Your task to perform on an android device: Show the shopping cart on costco. Search for "logitech g910" on costco, select the first entry, and add it to the cart. Image 0: 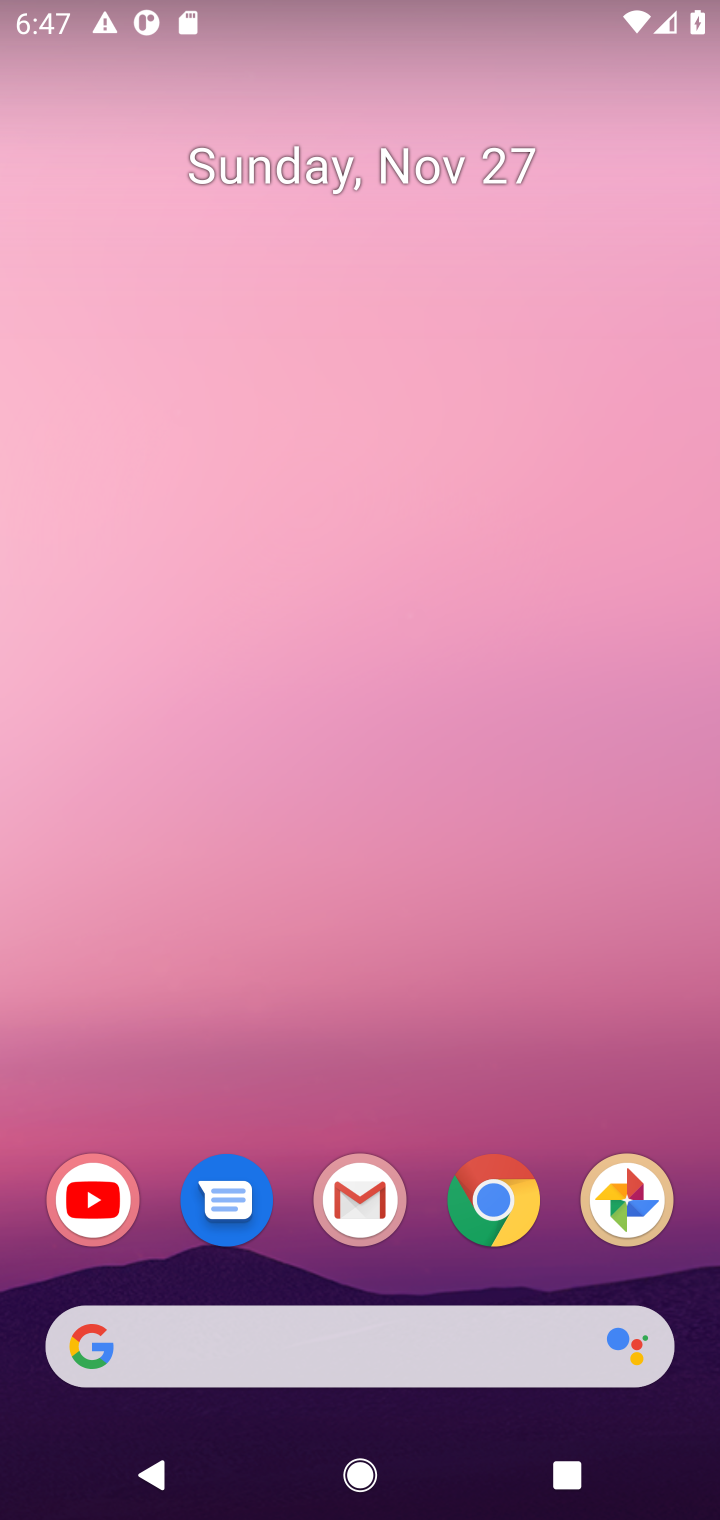
Step 0: click (502, 1205)
Your task to perform on an android device: Show the shopping cart on costco. Search for "logitech g910" on costco, select the first entry, and add it to the cart. Image 1: 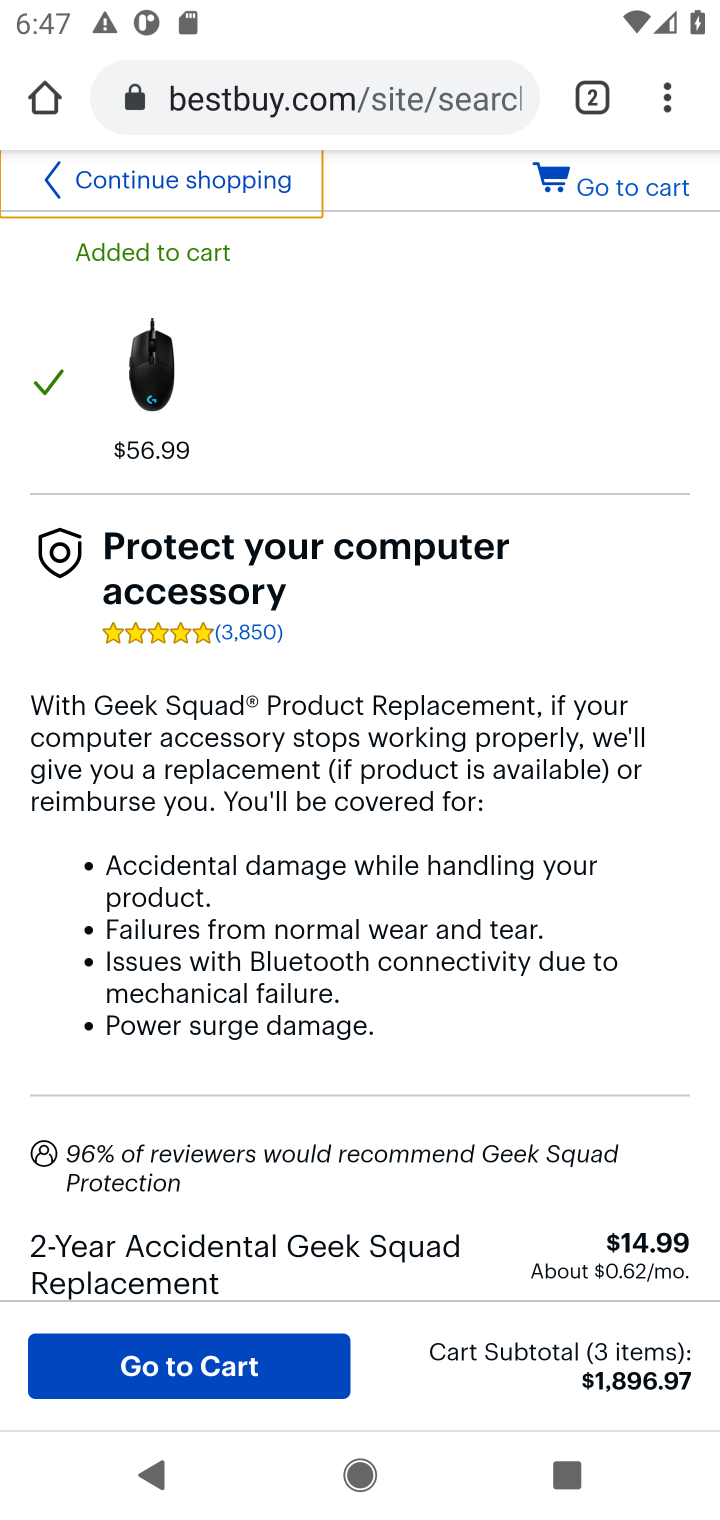
Step 1: press home button
Your task to perform on an android device: Show the shopping cart on costco. Search for "logitech g910" on costco, select the first entry, and add it to the cart. Image 2: 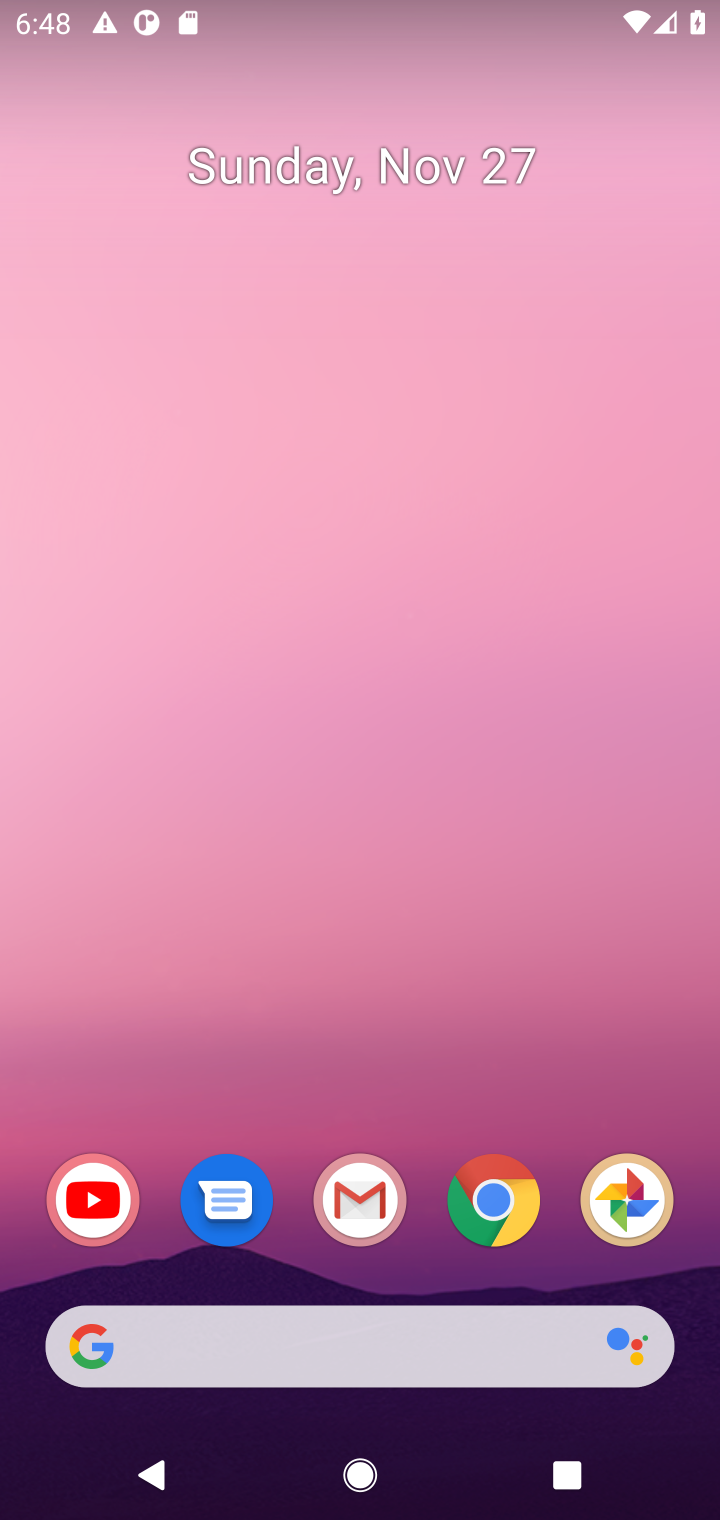
Step 2: click (499, 1211)
Your task to perform on an android device: Show the shopping cart on costco. Search for "logitech g910" on costco, select the first entry, and add it to the cart. Image 3: 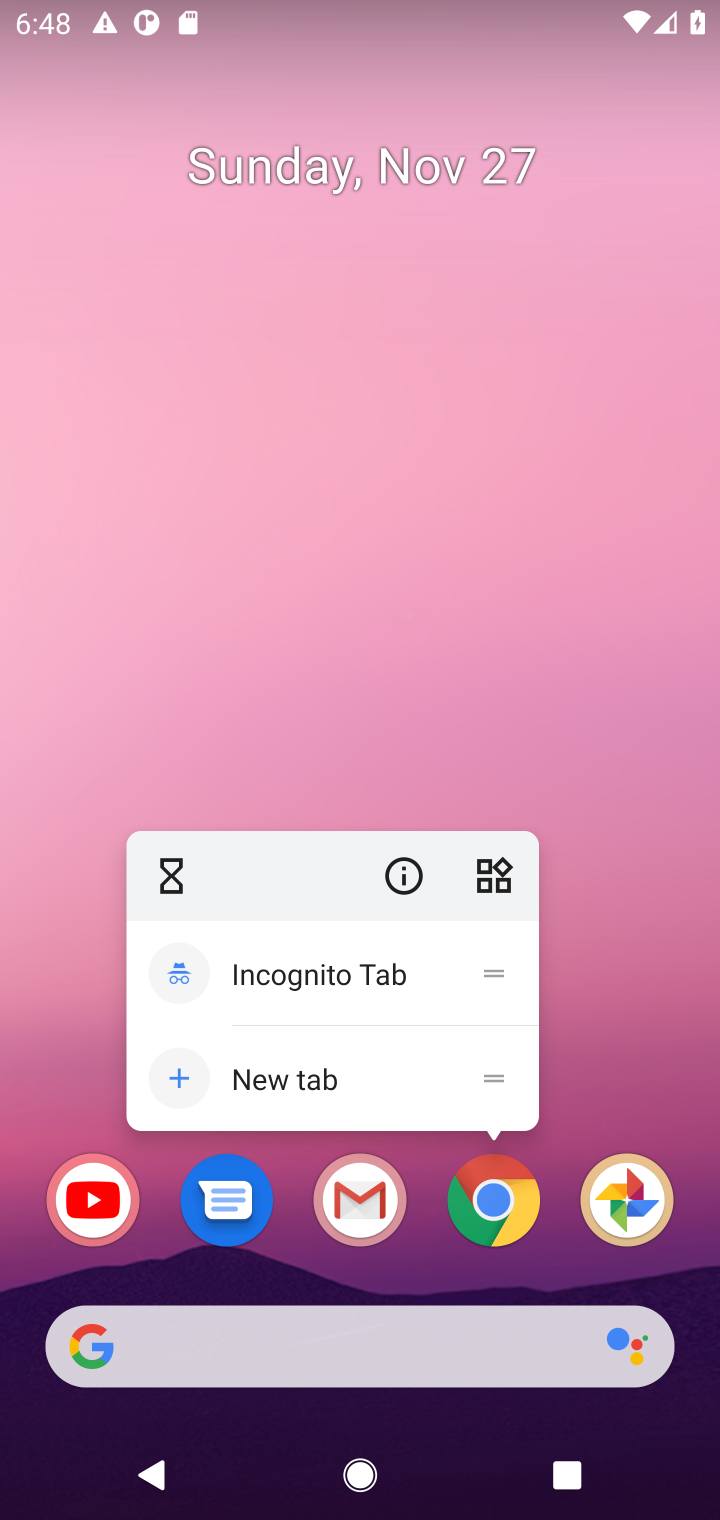
Step 3: click (512, 1211)
Your task to perform on an android device: Show the shopping cart on costco. Search for "logitech g910" on costco, select the first entry, and add it to the cart. Image 4: 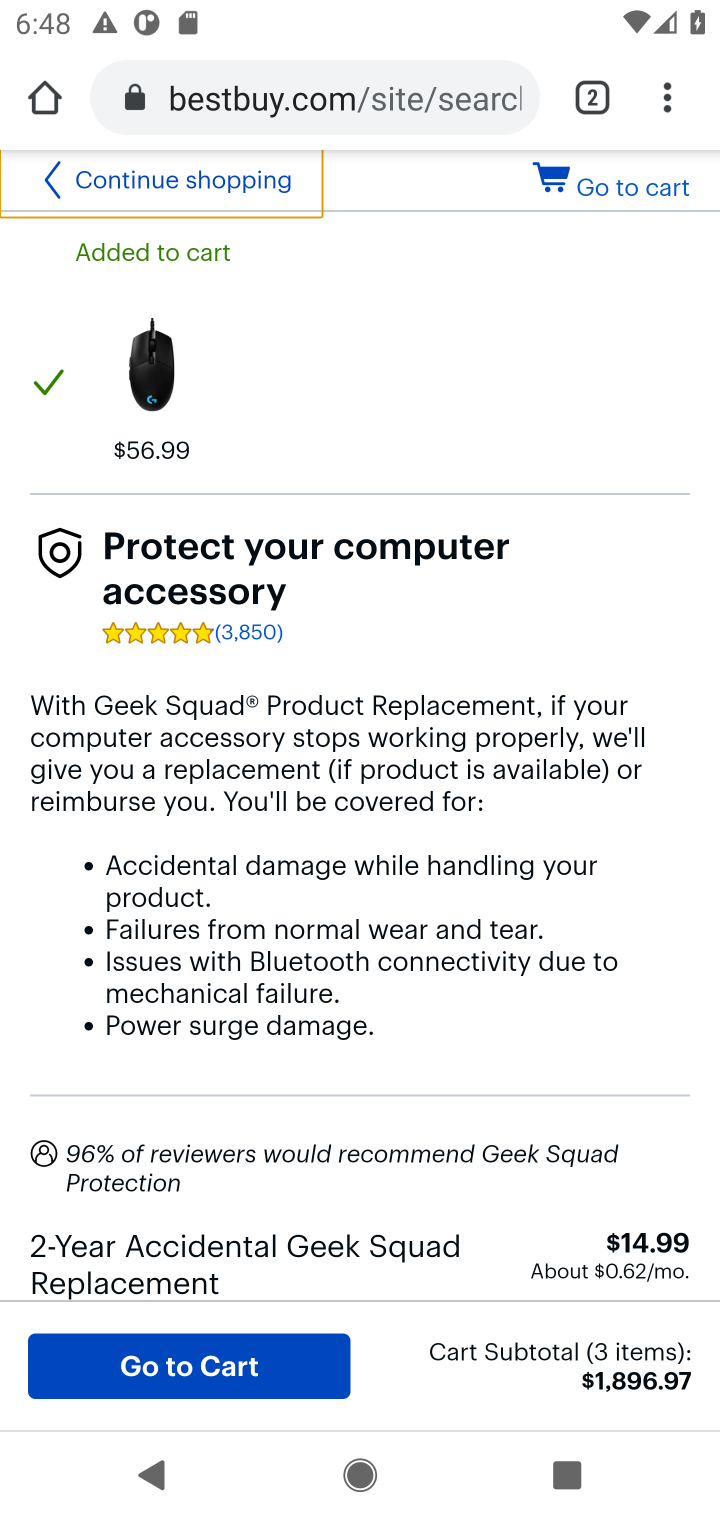
Step 4: click (289, 98)
Your task to perform on an android device: Show the shopping cart on costco. Search for "logitech g910" on costco, select the first entry, and add it to the cart. Image 5: 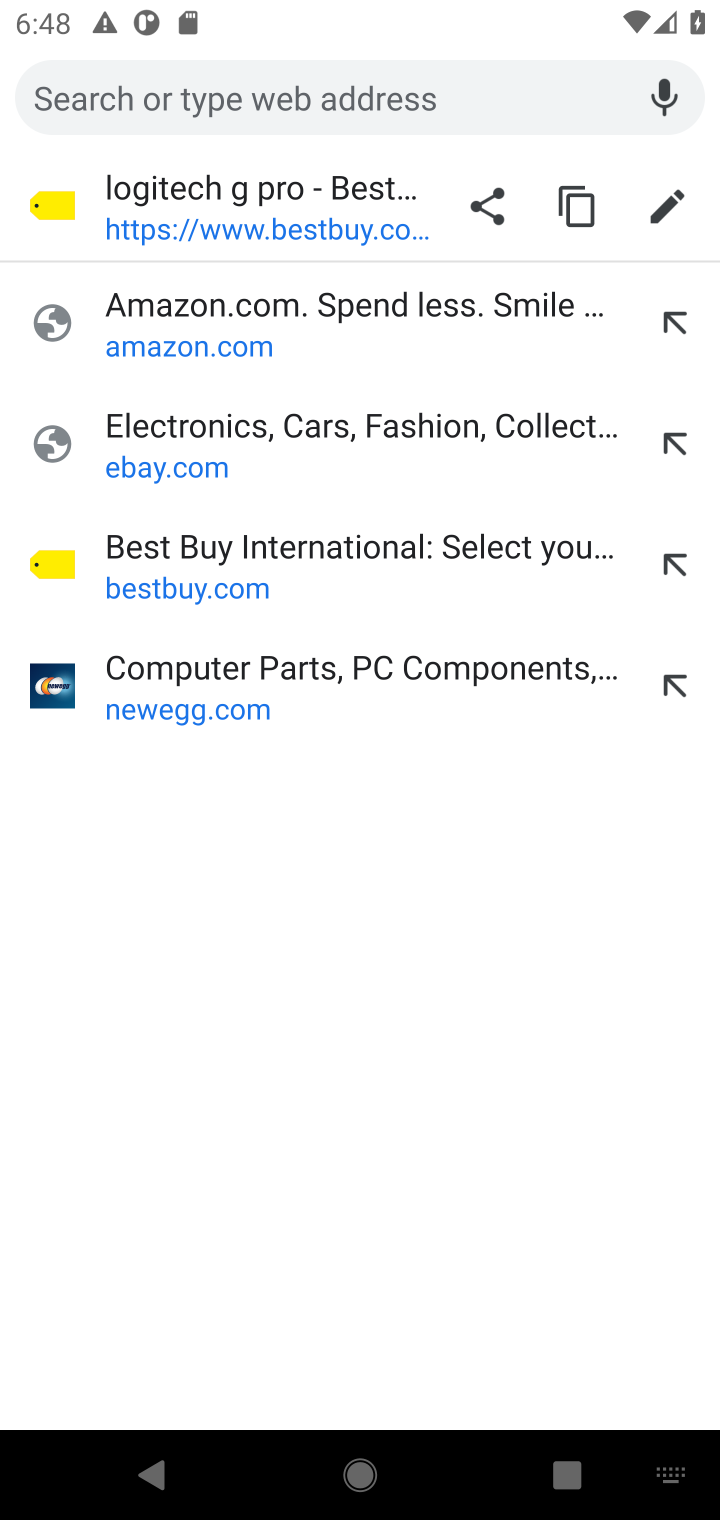
Step 5: type "costco.com"
Your task to perform on an android device: Show the shopping cart on costco. Search for "logitech g910" on costco, select the first entry, and add it to the cart. Image 6: 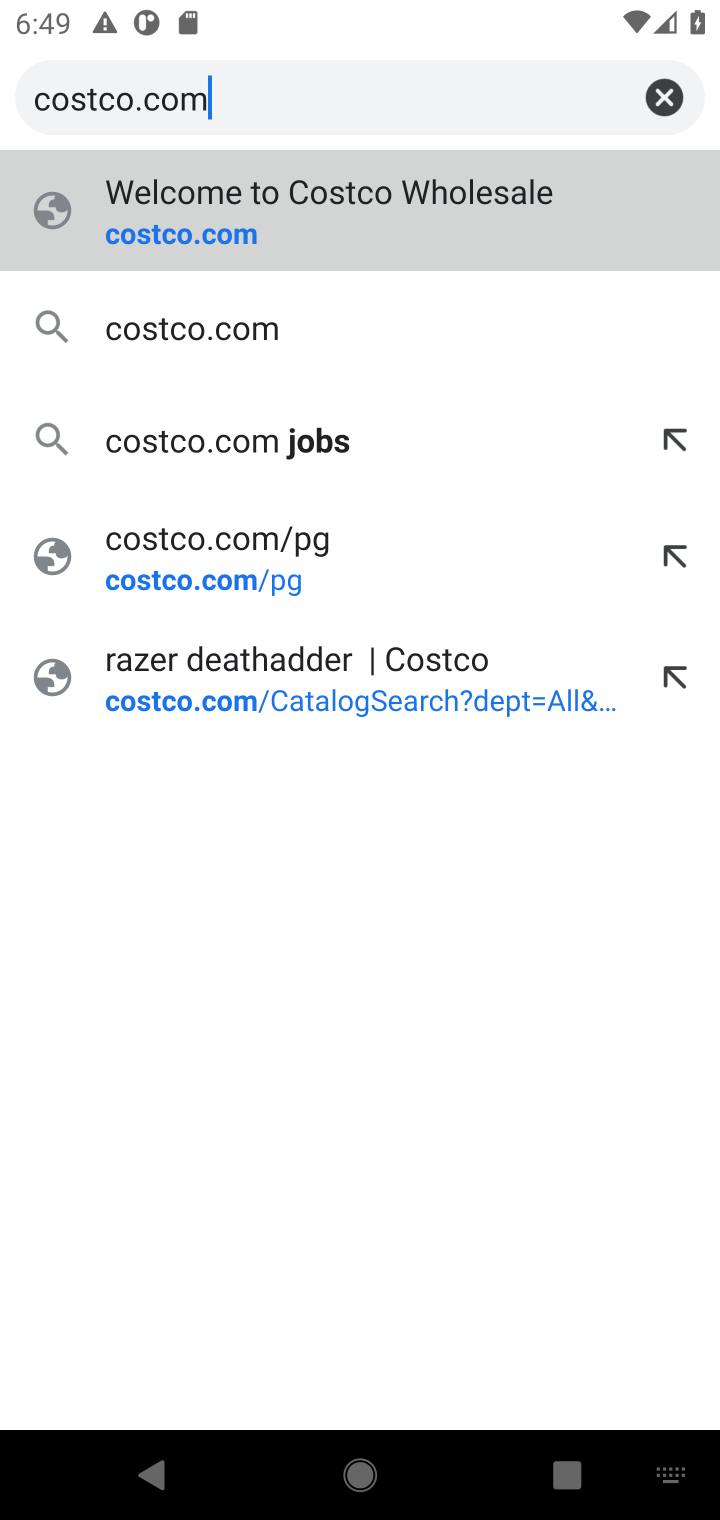
Step 6: click (156, 235)
Your task to perform on an android device: Show the shopping cart on costco. Search for "logitech g910" on costco, select the first entry, and add it to the cart. Image 7: 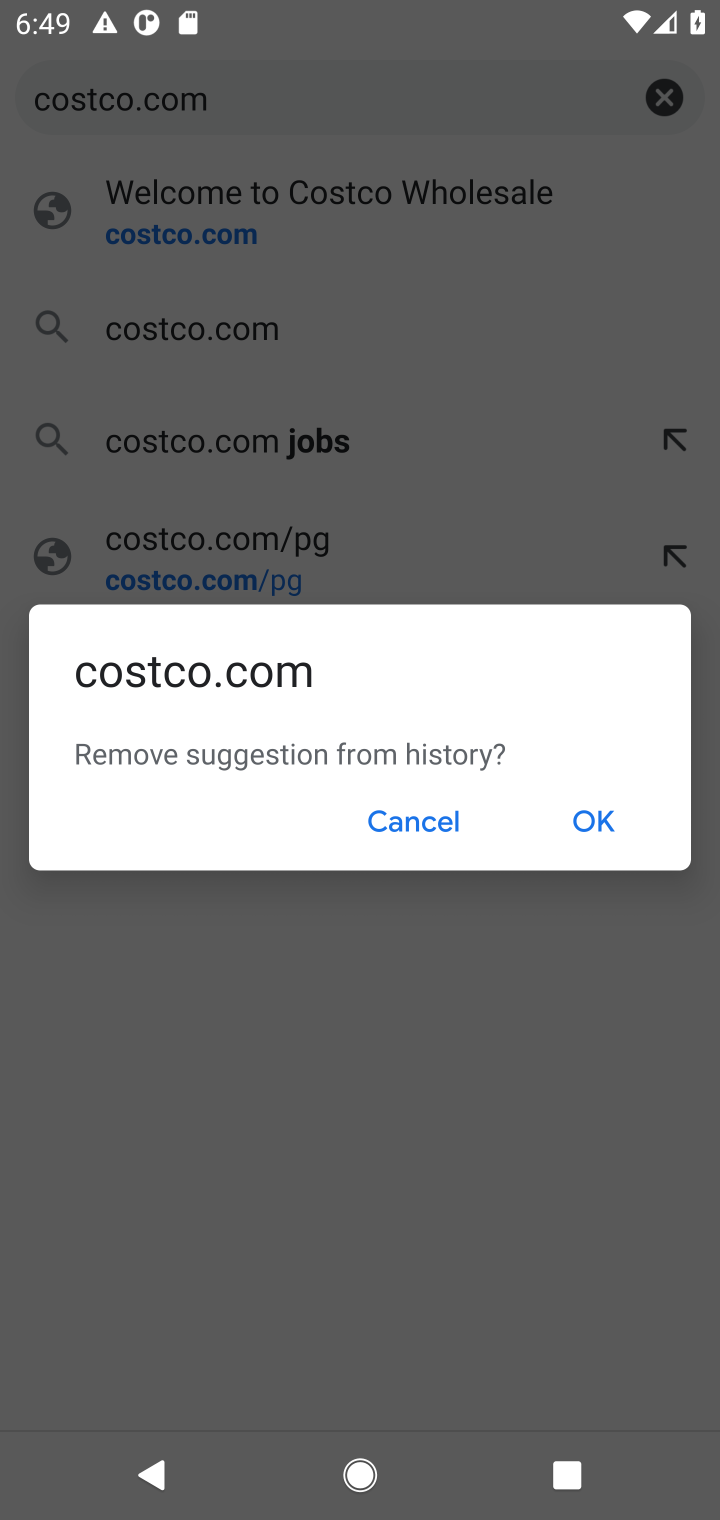
Step 7: click (422, 835)
Your task to perform on an android device: Show the shopping cart on costco. Search for "logitech g910" on costco, select the first entry, and add it to the cart. Image 8: 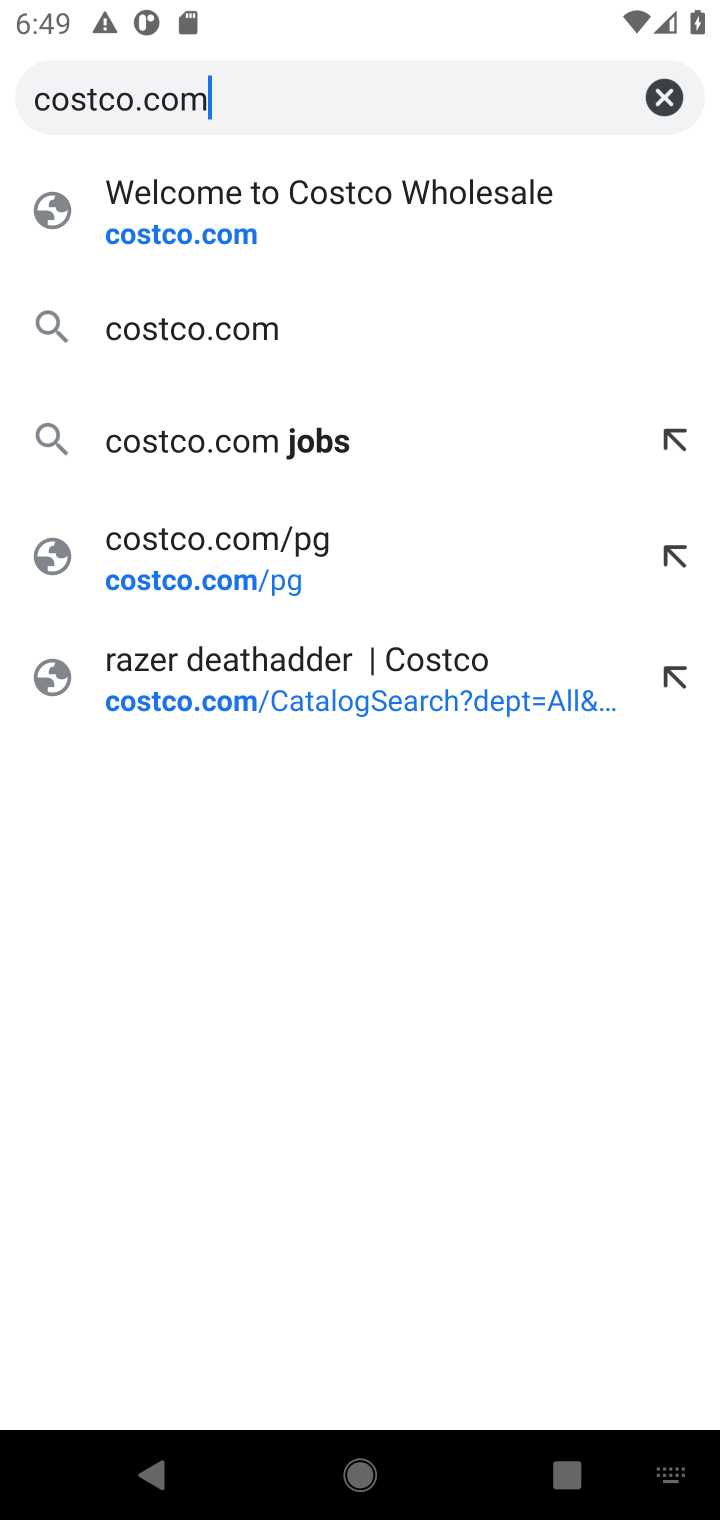
Step 8: click (148, 245)
Your task to perform on an android device: Show the shopping cart on costco. Search for "logitech g910" on costco, select the first entry, and add it to the cart. Image 9: 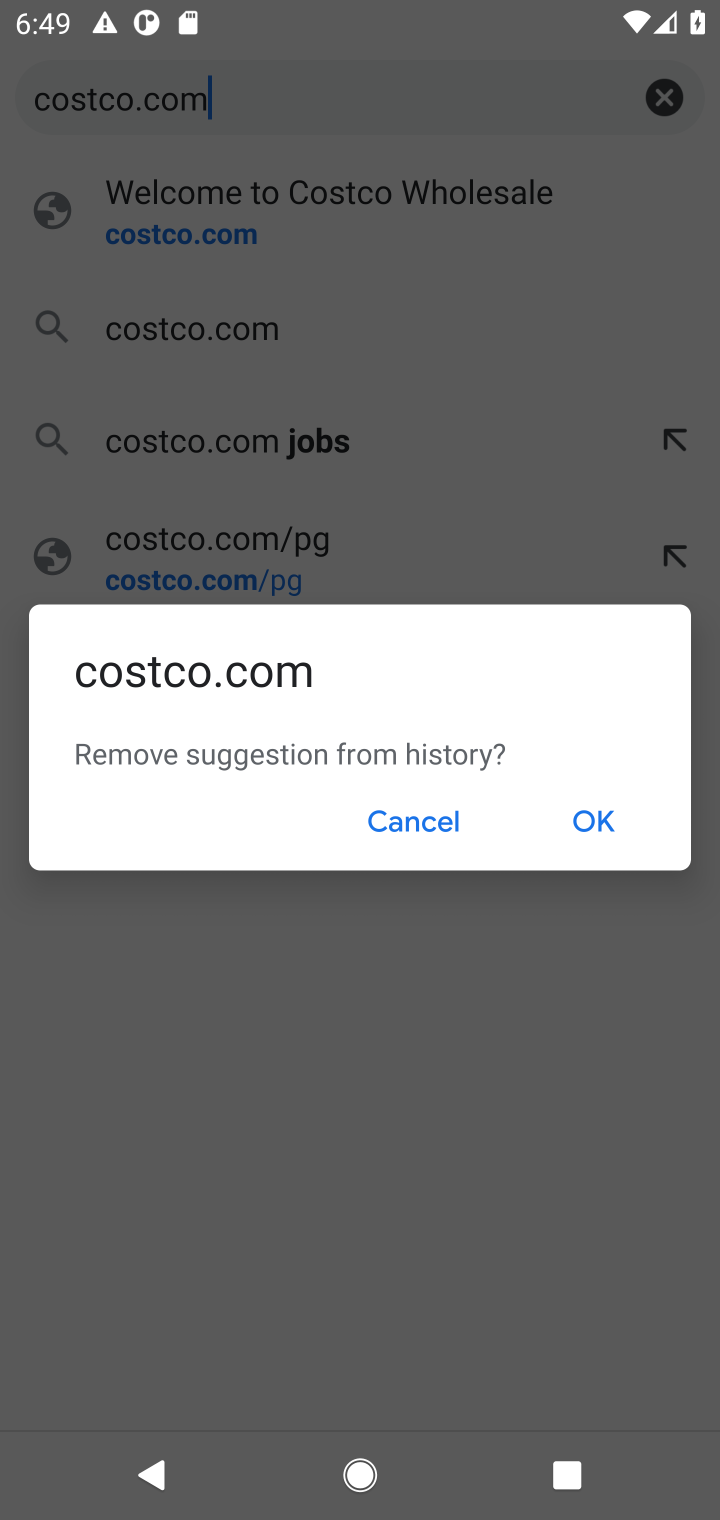
Step 9: click (420, 830)
Your task to perform on an android device: Show the shopping cart on costco. Search for "logitech g910" on costco, select the first entry, and add it to the cart. Image 10: 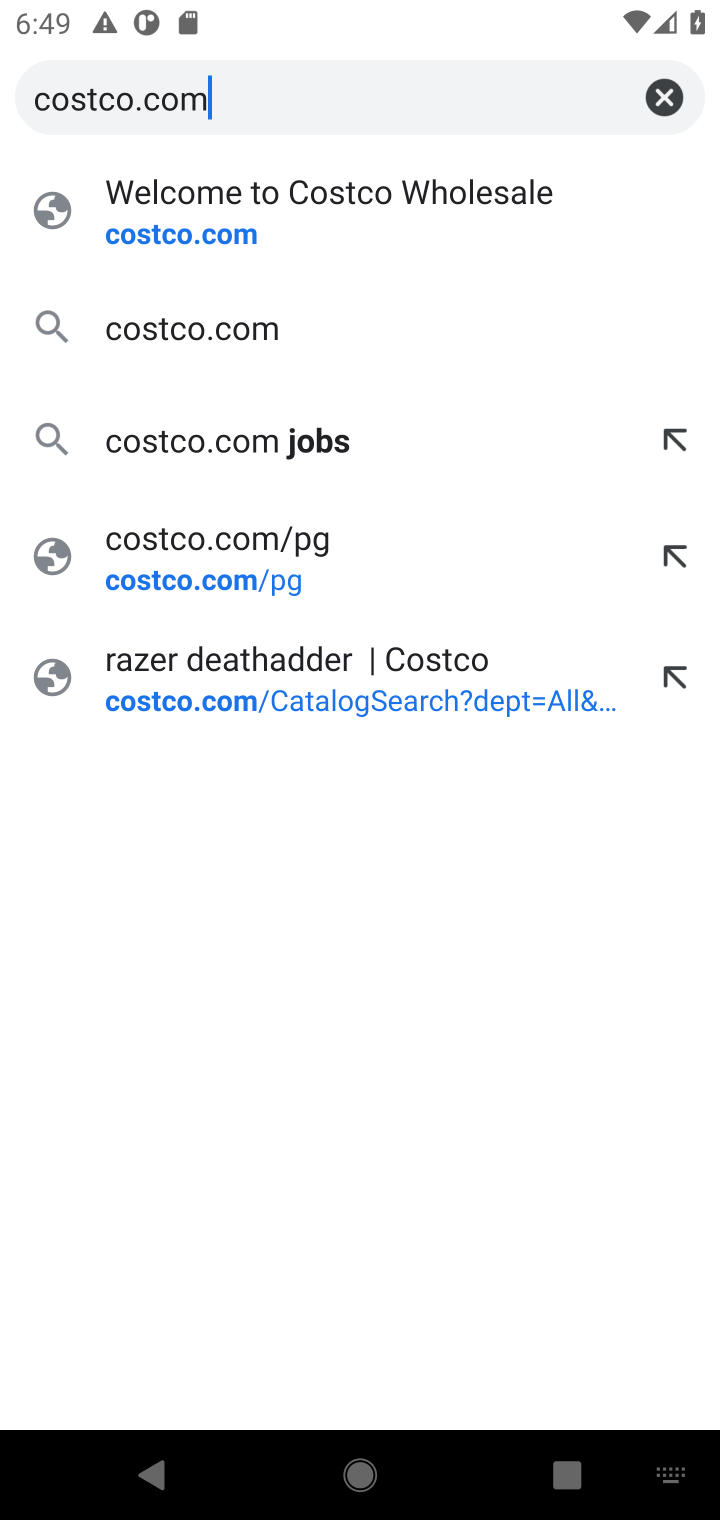
Step 10: click (137, 222)
Your task to perform on an android device: Show the shopping cart on costco. Search for "logitech g910" on costco, select the first entry, and add it to the cart. Image 11: 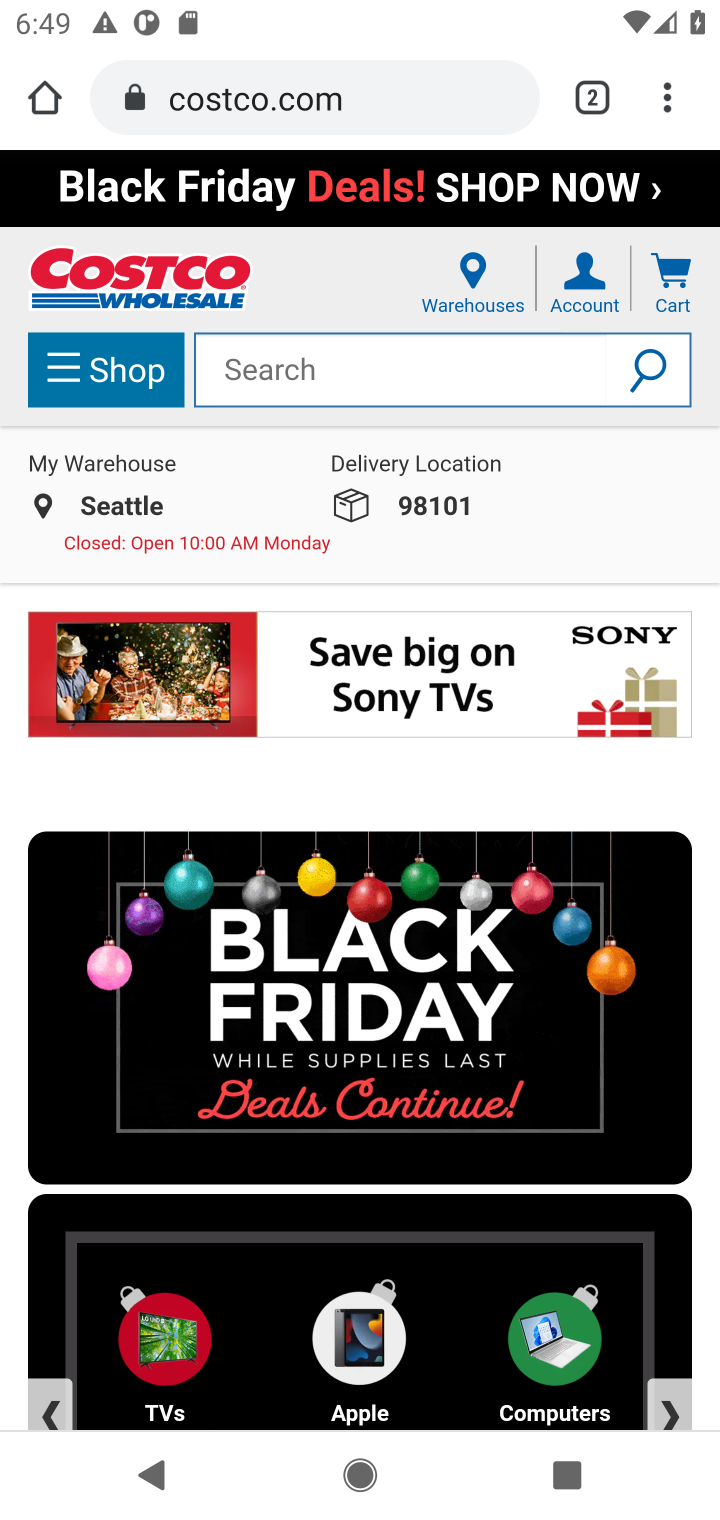
Step 11: click (671, 272)
Your task to perform on an android device: Show the shopping cart on costco. Search for "logitech g910" on costco, select the first entry, and add it to the cart. Image 12: 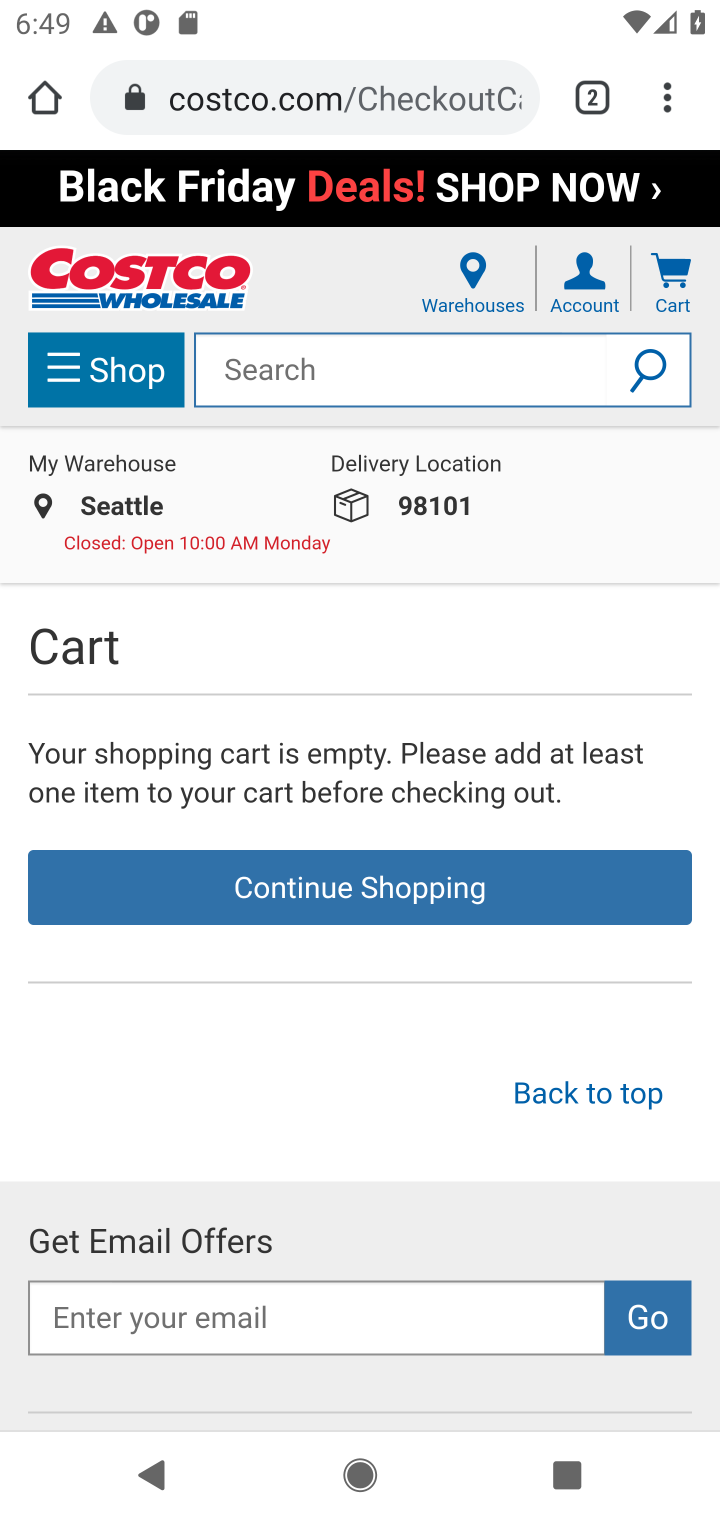
Step 12: click (288, 366)
Your task to perform on an android device: Show the shopping cart on costco. Search for "logitech g910" on costco, select the first entry, and add it to the cart. Image 13: 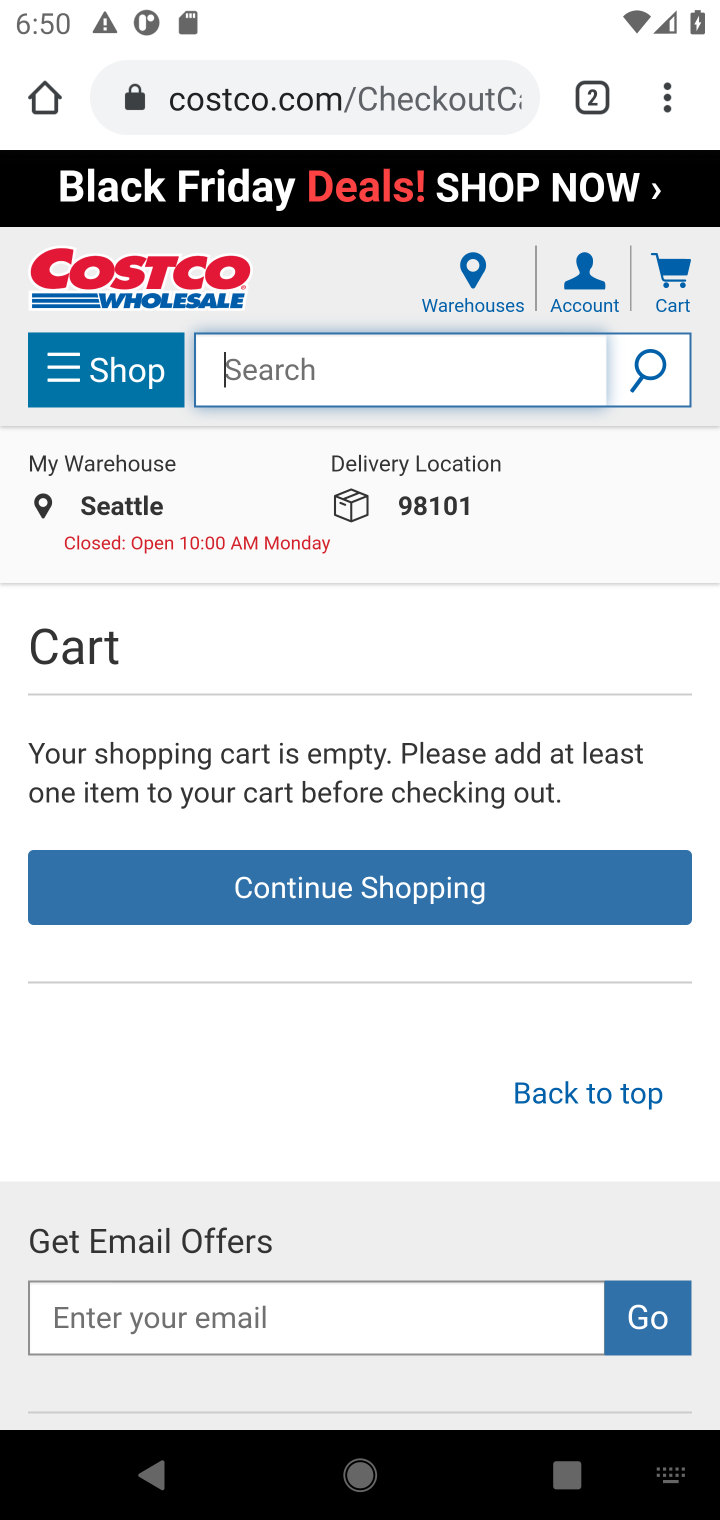
Step 13: type "logitech g910"
Your task to perform on an android device: Show the shopping cart on costco. Search for "logitech g910" on costco, select the first entry, and add it to the cart. Image 14: 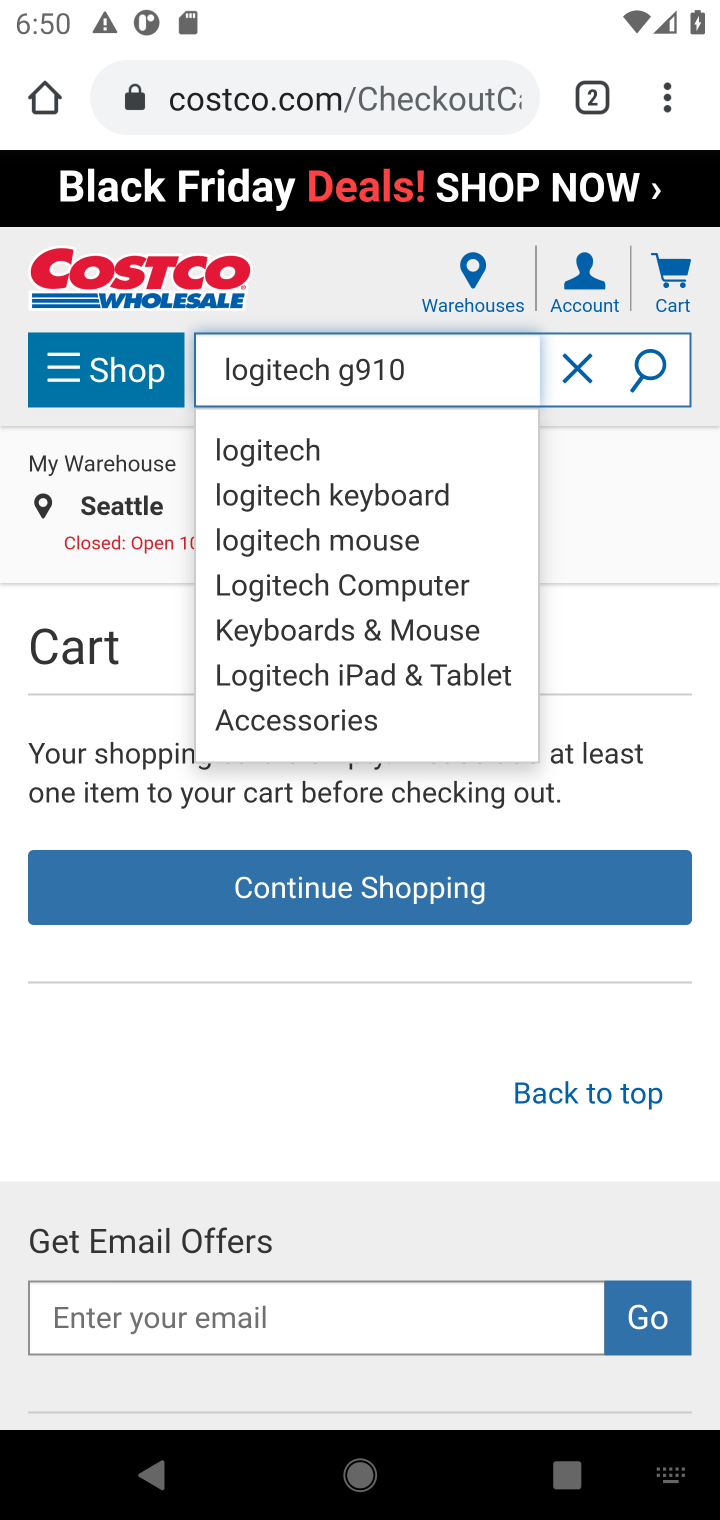
Step 14: click (646, 377)
Your task to perform on an android device: Show the shopping cart on costco. Search for "logitech g910" on costco, select the first entry, and add it to the cart. Image 15: 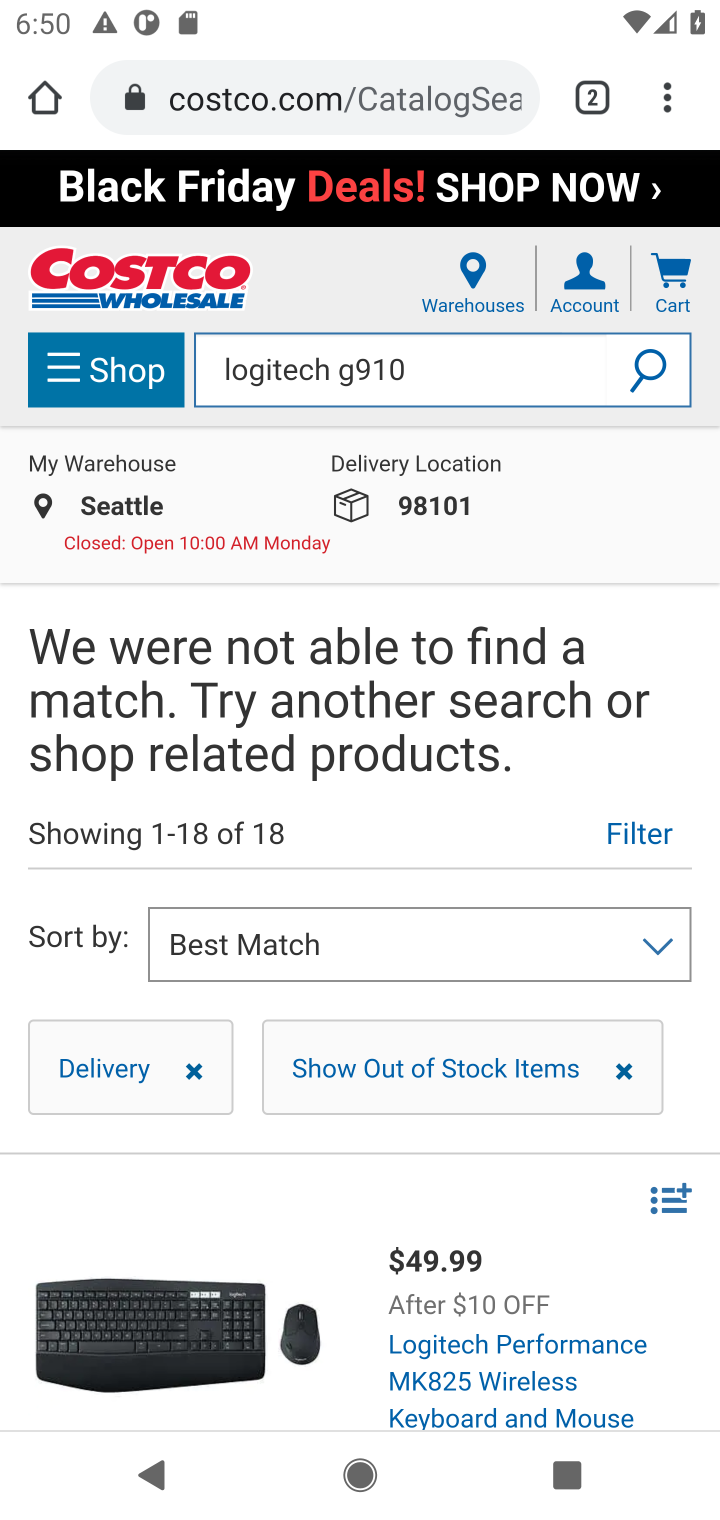
Step 15: task complete